Your task to perform on an android device: Open Chrome and go to settings Image 0: 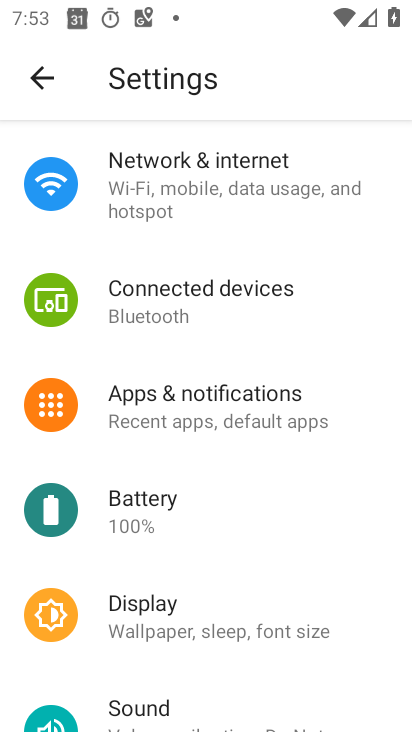
Step 0: press home button
Your task to perform on an android device: Open Chrome and go to settings Image 1: 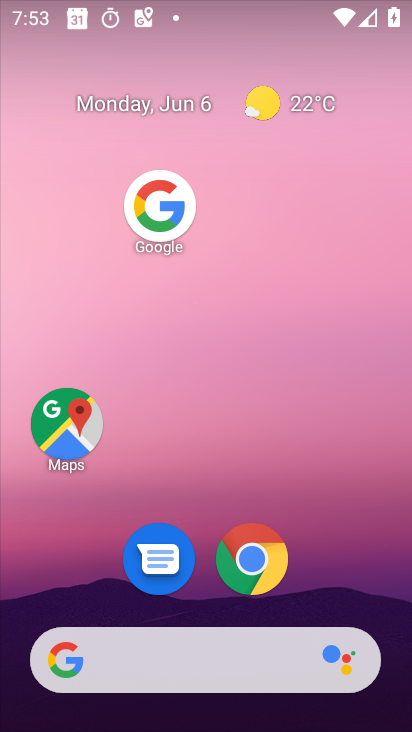
Step 1: drag from (280, 565) to (247, 314)
Your task to perform on an android device: Open Chrome and go to settings Image 2: 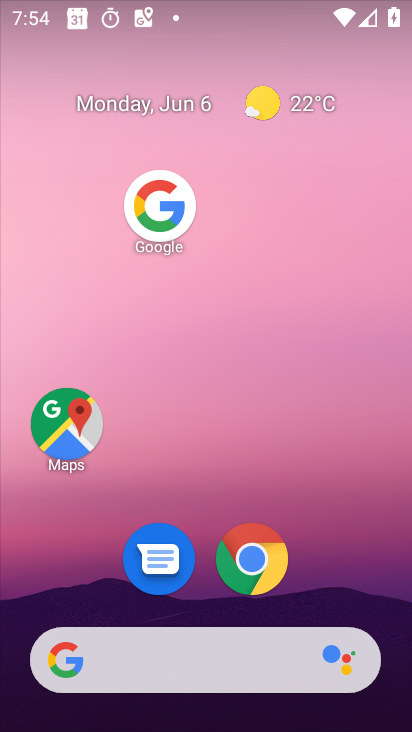
Step 2: drag from (153, 515) to (178, 67)
Your task to perform on an android device: Open Chrome and go to settings Image 3: 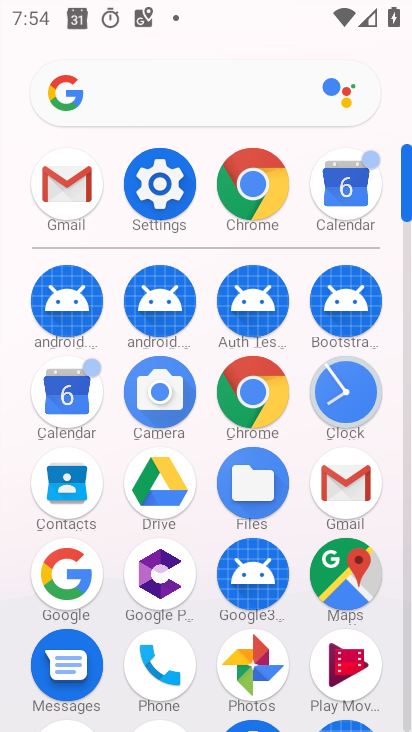
Step 3: click (252, 191)
Your task to perform on an android device: Open Chrome and go to settings Image 4: 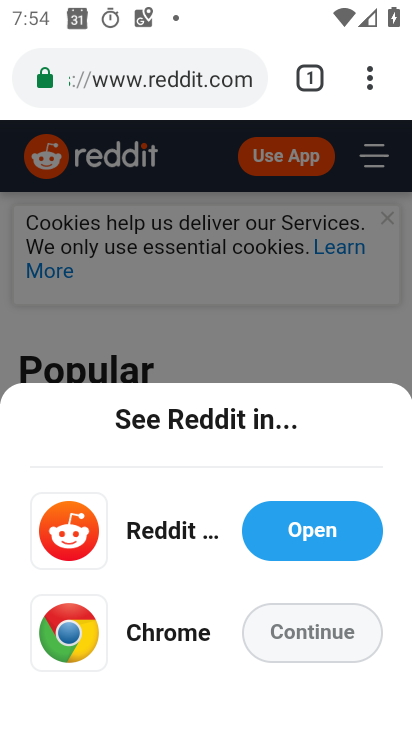
Step 4: click (361, 80)
Your task to perform on an android device: Open Chrome and go to settings Image 5: 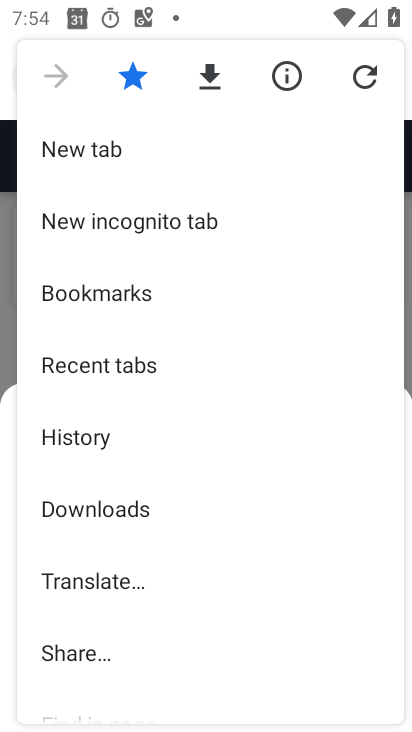
Step 5: drag from (308, 562) to (305, 270)
Your task to perform on an android device: Open Chrome and go to settings Image 6: 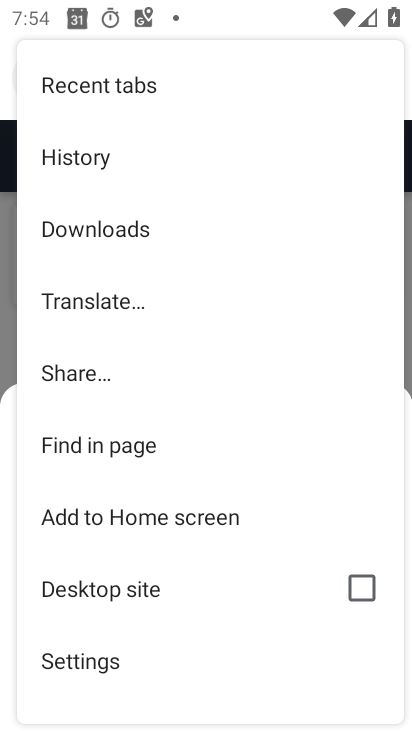
Step 6: click (81, 663)
Your task to perform on an android device: Open Chrome and go to settings Image 7: 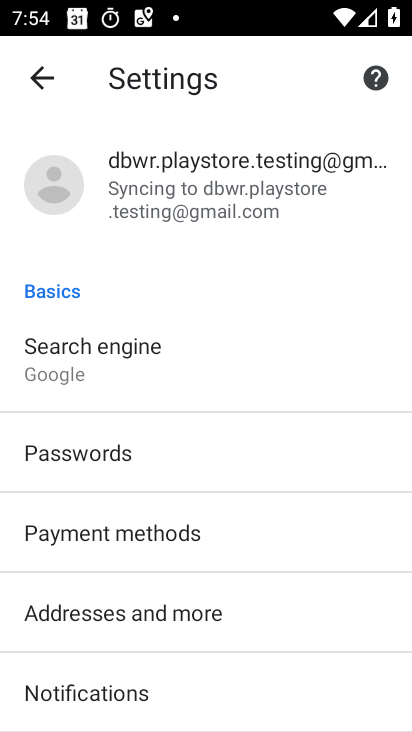
Step 7: task complete